Your task to perform on an android device: Open eBay Image 0: 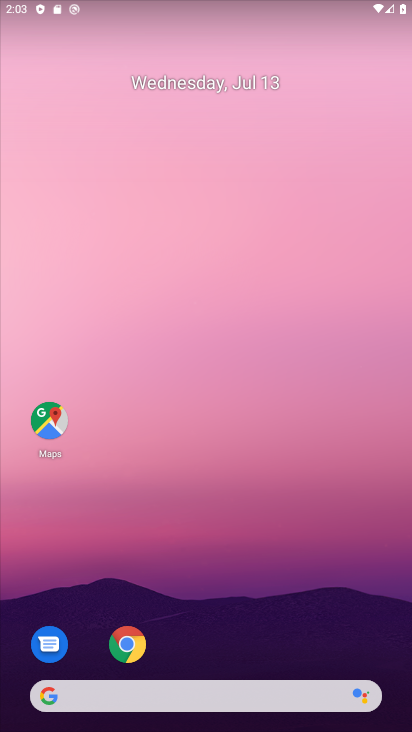
Step 0: drag from (308, 613) to (320, 65)
Your task to perform on an android device: Open eBay Image 1: 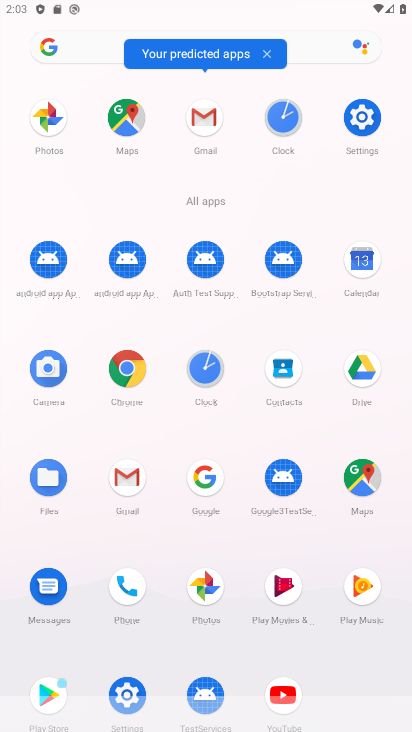
Step 1: click (132, 371)
Your task to perform on an android device: Open eBay Image 2: 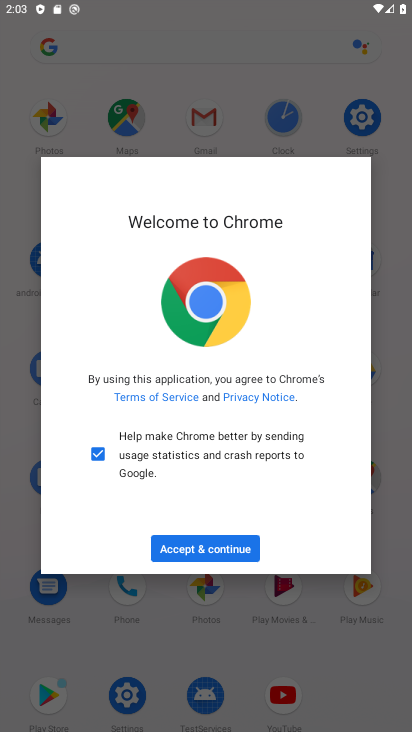
Step 2: click (196, 545)
Your task to perform on an android device: Open eBay Image 3: 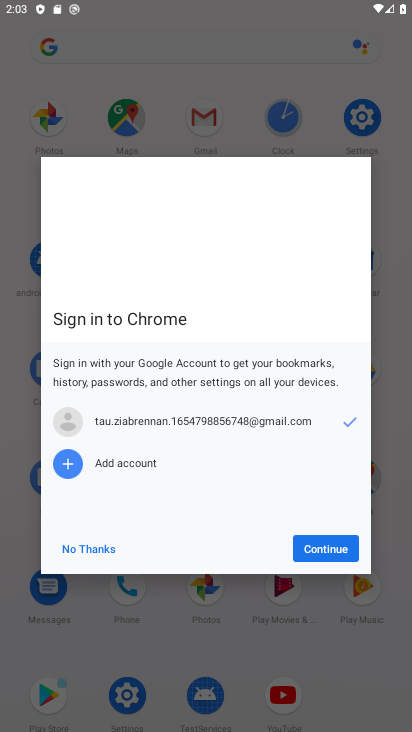
Step 3: click (326, 553)
Your task to perform on an android device: Open eBay Image 4: 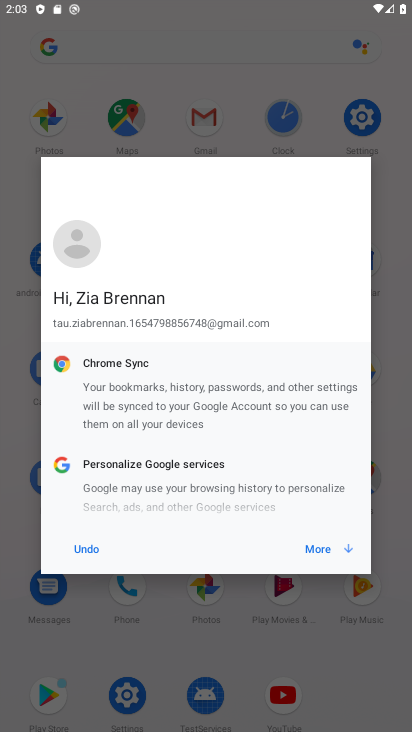
Step 4: click (326, 553)
Your task to perform on an android device: Open eBay Image 5: 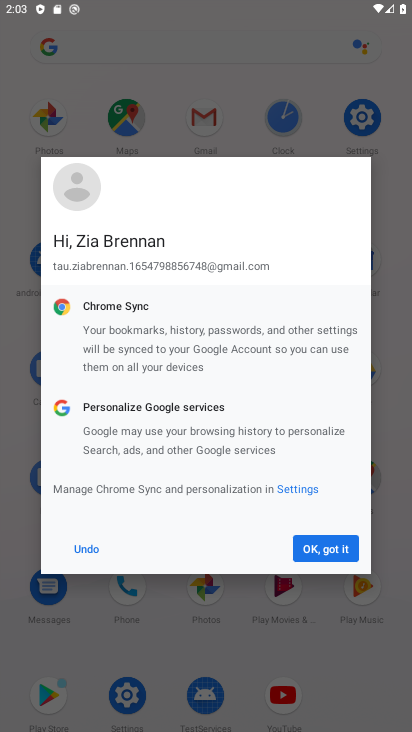
Step 5: click (326, 553)
Your task to perform on an android device: Open eBay Image 6: 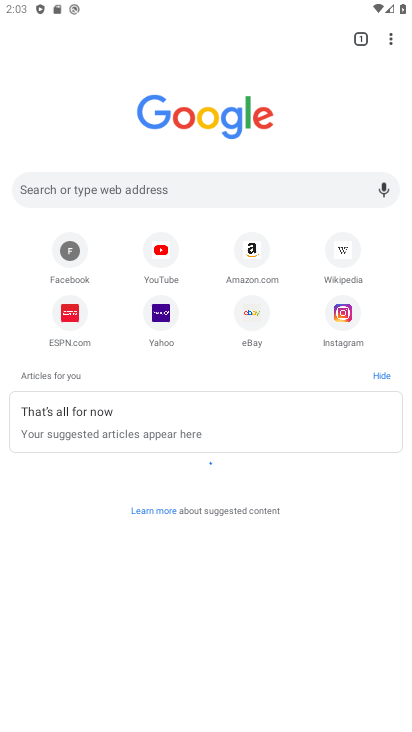
Step 6: click (249, 193)
Your task to perform on an android device: Open eBay Image 7: 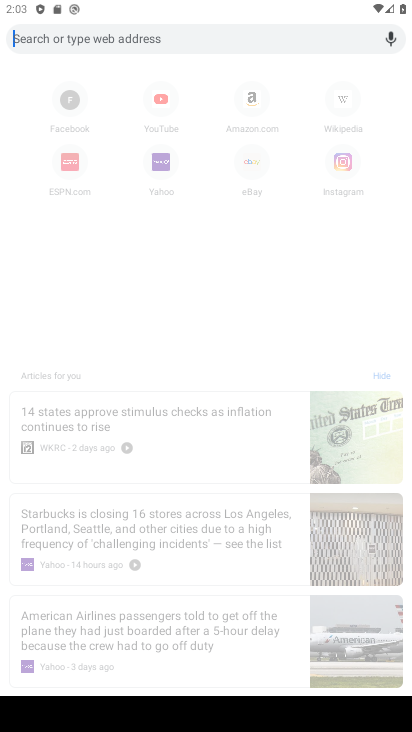
Step 7: type "ebay"
Your task to perform on an android device: Open eBay Image 8: 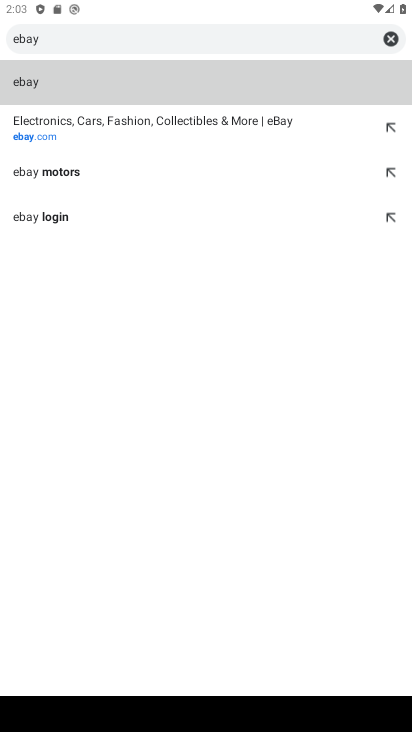
Step 8: click (172, 124)
Your task to perform on an android device: Open eBay Image 9: 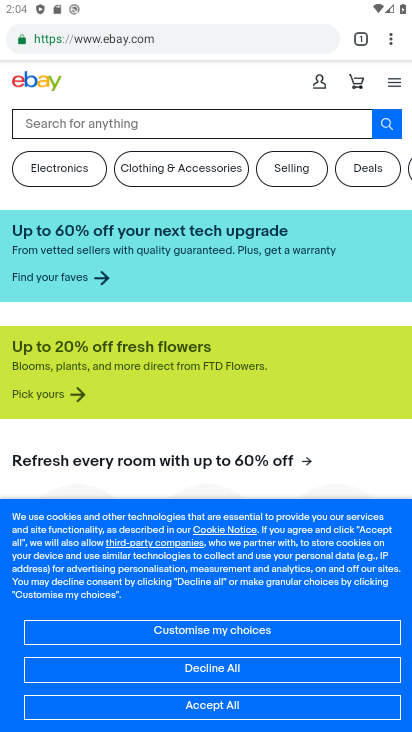
Step 9: task complete